Your task to perform on an android device: Show me the alarms in the clock app Image 0: 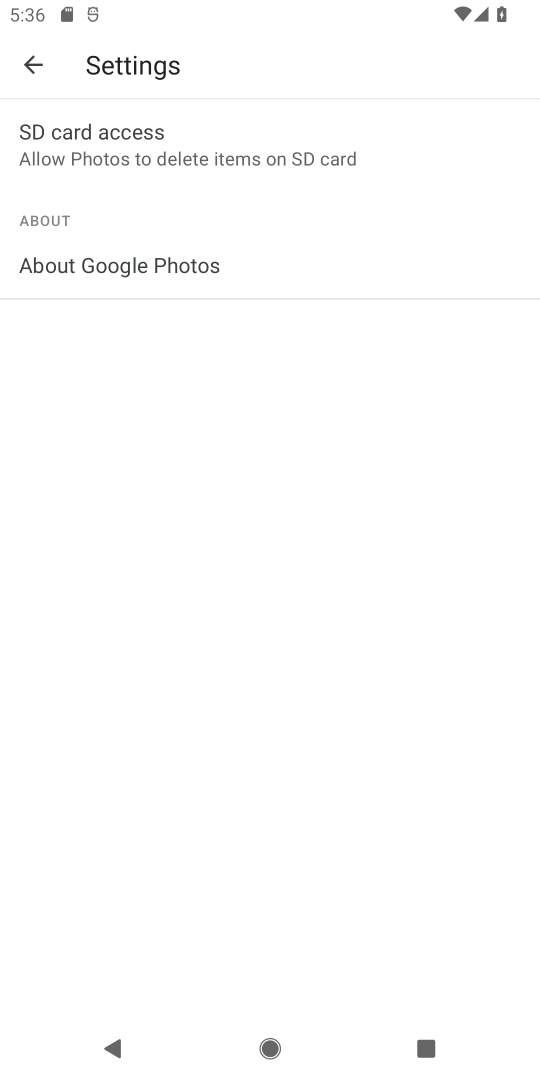
Step 0: press home button
Your task to perform on an android device: Show me the alarms in the clock app Image 1: 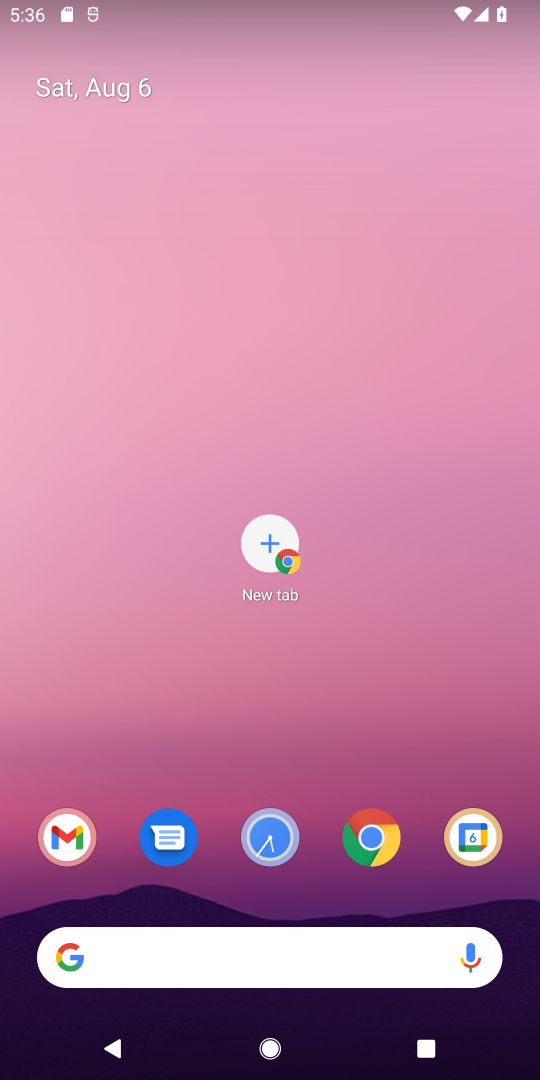
Step 1: drag from (441, 733) to (529, 139)
Your task to perform on an android device: Show me the alarms in the clock app Image 2: 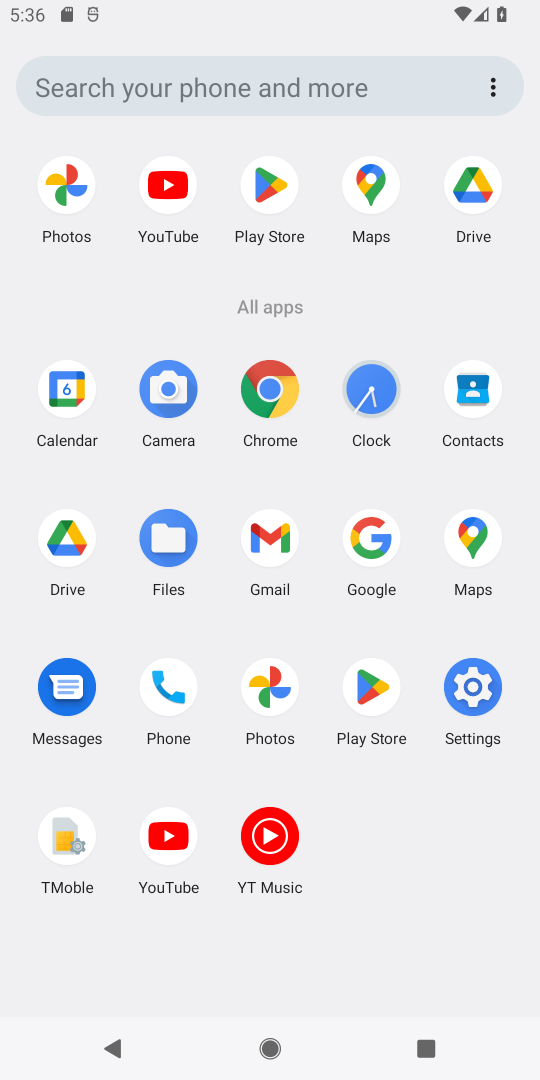
Step 2: click (381, 391)
Your task to perform on an android device: Show me the alarms in the clock app Image 3: 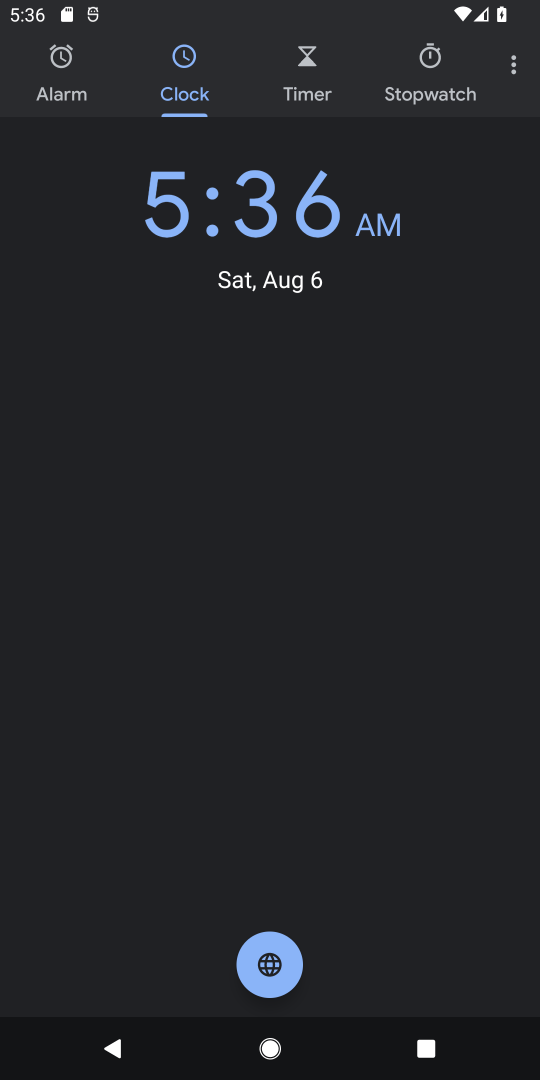
Step 3: task complete